Your task to perform on an android device: open chrome privacy settings Image 0: 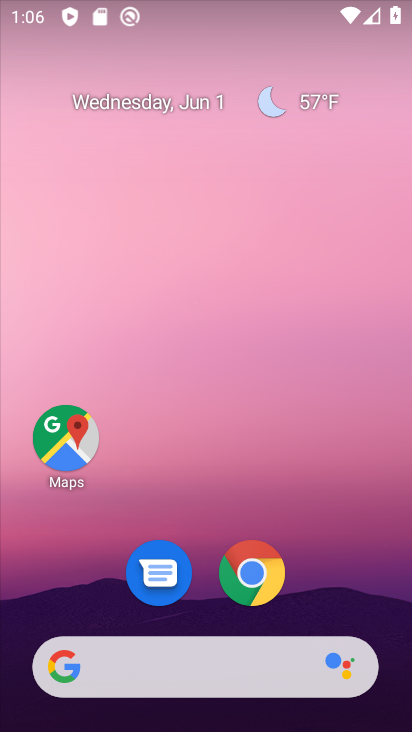
Step 0: drag from (196, 265) to (199, 66)
Your task to perform on an android device: open chrome privacy settings Image 1: 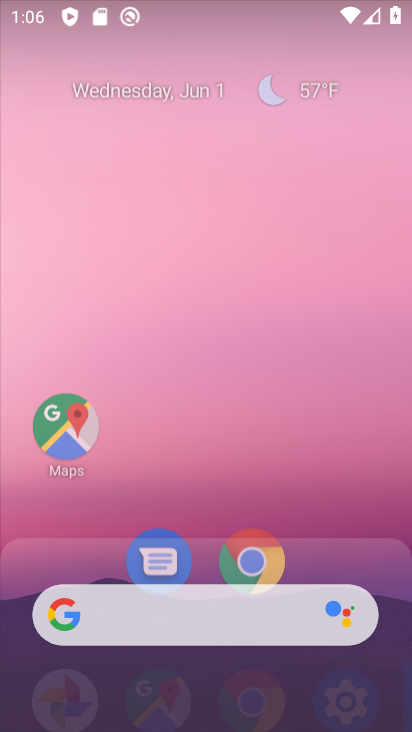
Step 1: click (247, 109)
Your task to perform on an android device: open chrome privacy settings Image 2: 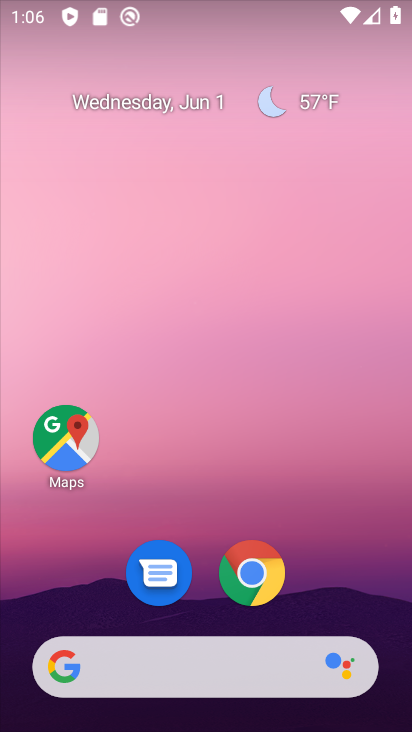
Step 2: drag from (202, 612) to (13, 276)
Your task to perform on an android device: open chrome privacy settings Image 3: 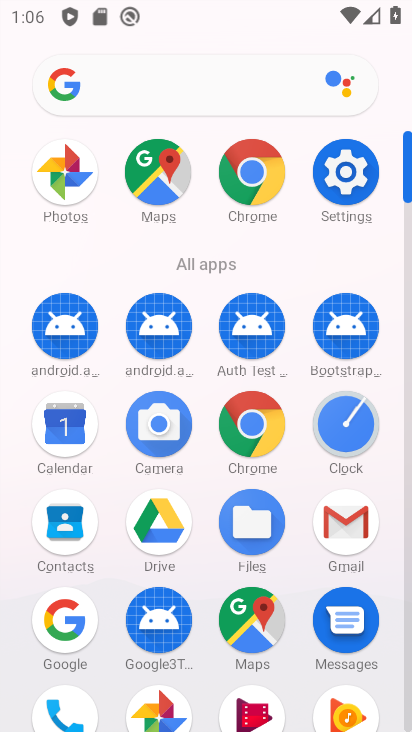
Step 3: click (338, 175)
Your task to perform on an android device: open chrome privacy settings Image 4: 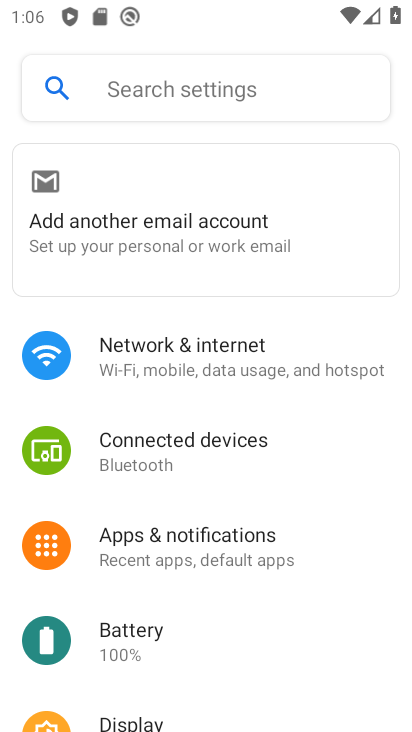
Step 4: drag from (188, 559) to (202, 181)
Your task to perform on an android device: open chrome privacy settings Image 5: 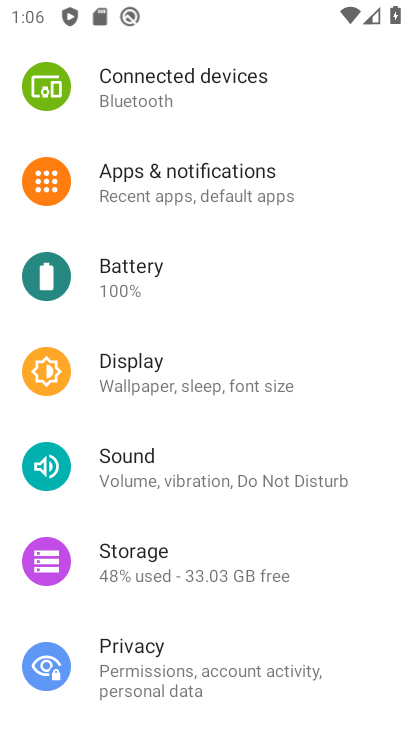
Step 5: drag from (216, 597) to (253, 176)
Your task to perform on an android device: open chrome privacy settings Image 6: 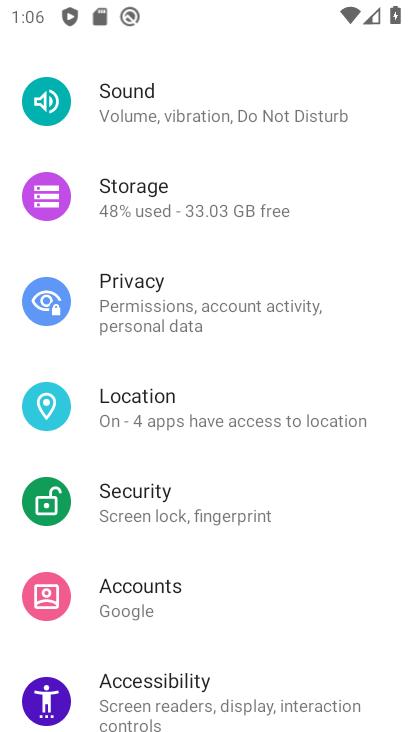
Step 6: drag from (242, 684) to (241, 321)
Your task to perform on an android device: open chrome privacy settings Image 7: 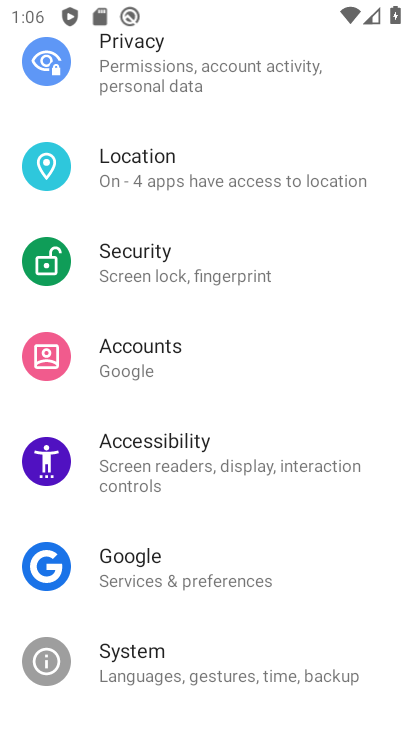
Step 7: drag from (209, 168) to (240, 479)
Your task to perform on an android device: open chrome privacy settings Image 8: 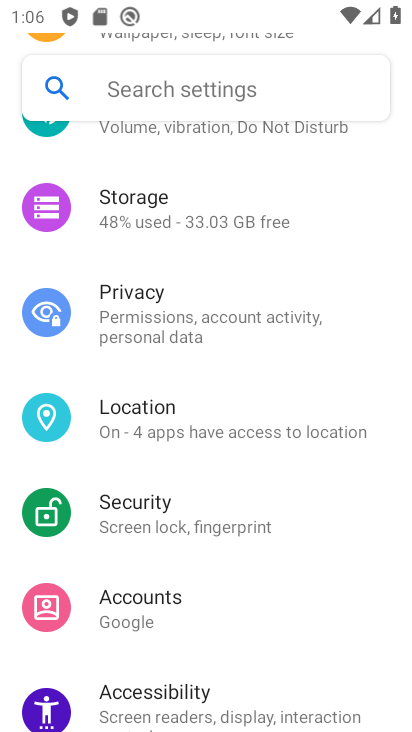
Step 8: click (197, 292)
Your task to perform on an android device: open chrome privacy settings Image 9: 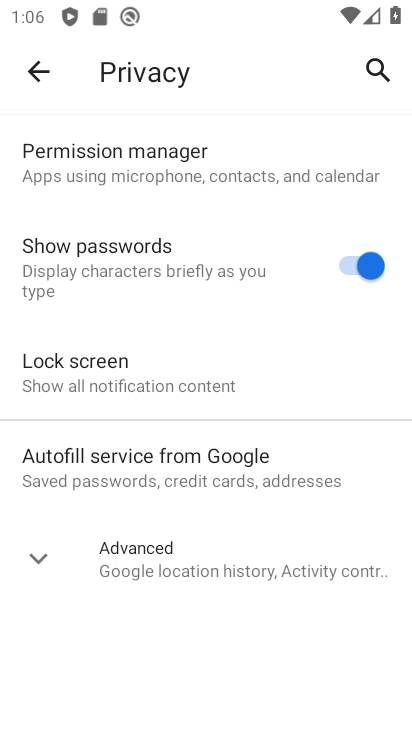
Step 9: drag from (200, 604) to (206, 266)
Your task to perform on an android device: open chrome privacy settings Image 10: 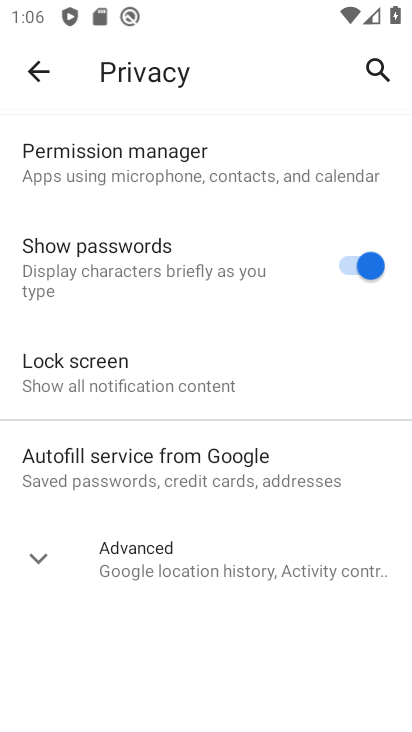
Step 10: click (164, 553)
Your task to perform on an android device: open chrome privacy settings Image 11: 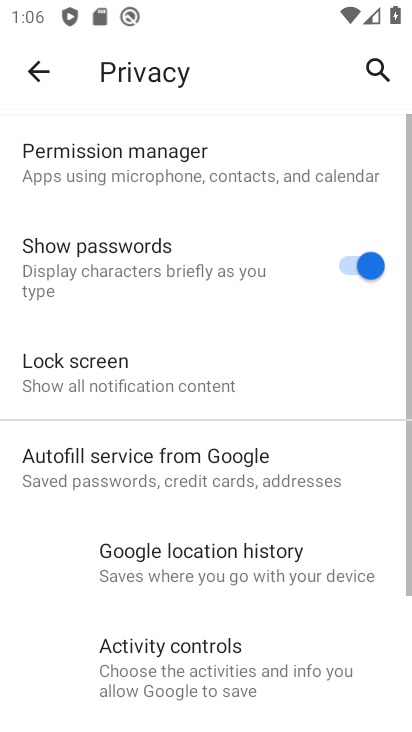
Step 11: drag from (219, 628) to (256, 374)
Your task to perform on an android device: open chrome privacy settings Image 12: 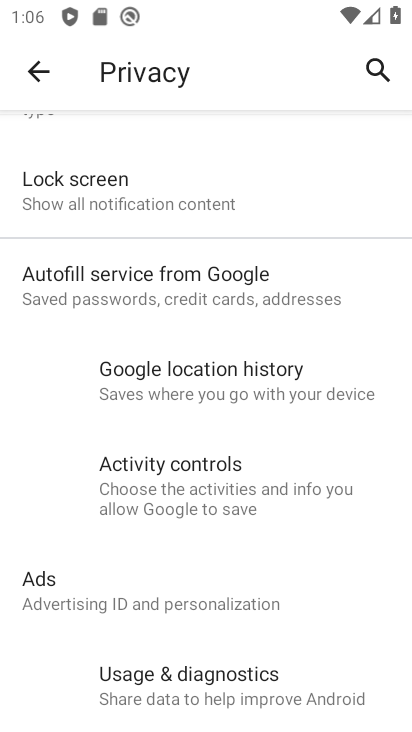
Step 12: drag from (209, 598) to (227, 333)
Your task to perform on an android device: open chrome privacy settings Image 13: 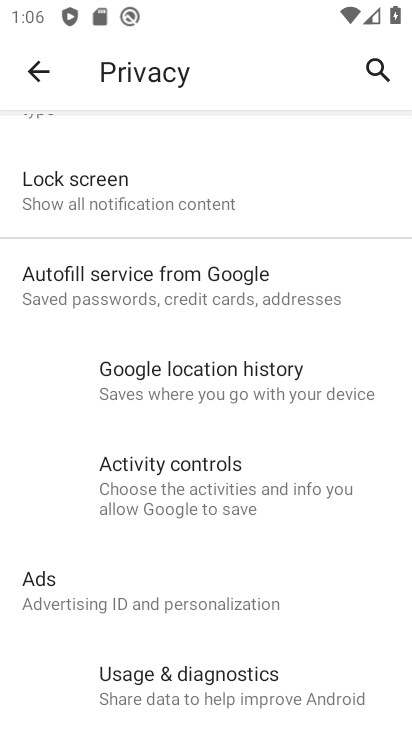
Step 13: drag from (211, 245) to (399, 134)
Your task to perform on an android device: open chrome privacy settings Image 14: 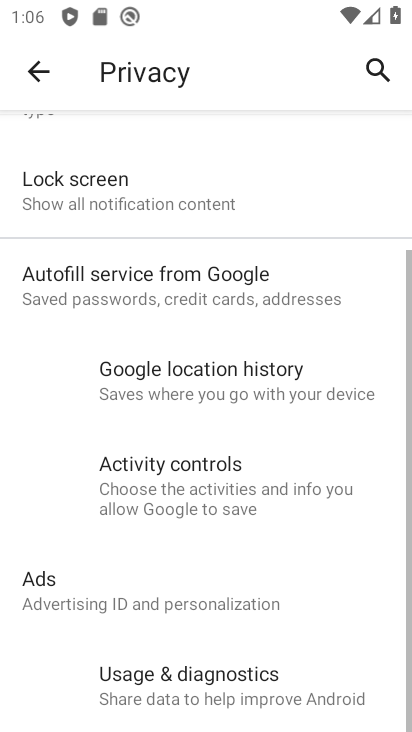
Step 14: click (41, 82)
Your task to perform on an android device: open chrome privacy settings Image 15: 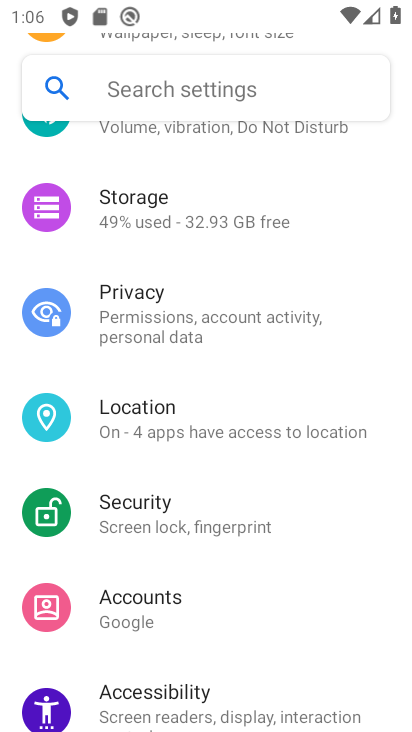
Step 15: drag from (194, 611) to (252, 6)
Your task to perform on an android device: open chrome privacy settings Image 16: 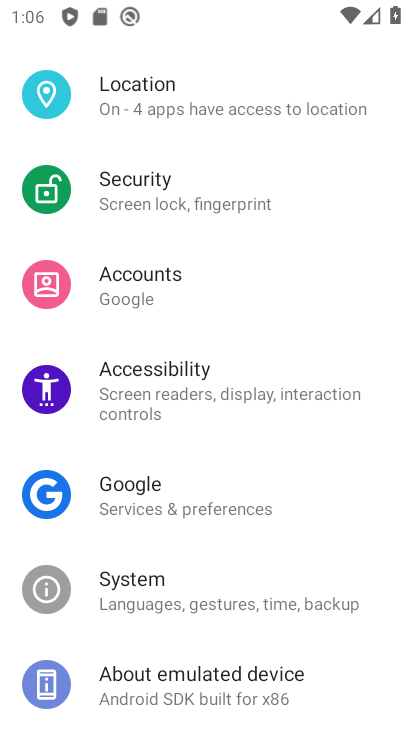
Step 16: press home button
Your task to perform on an android device: open chrome privacy settings Image 17: 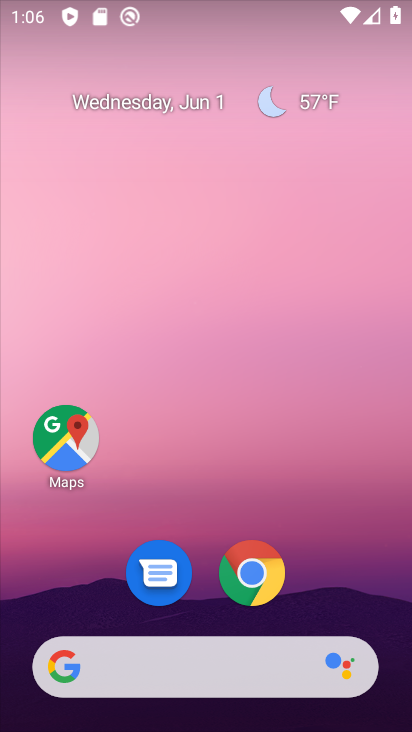
Step 17: press home button
Your task to perform on an android device: open chrome privacy settings Image 18: 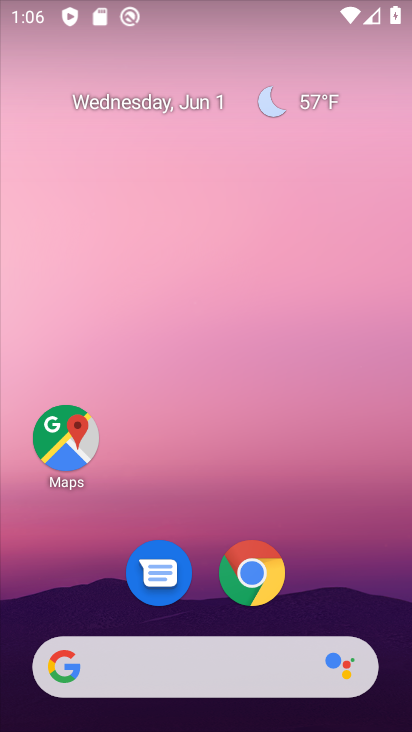
Step 18: drag from (221, 347) to (262, 89)
Your task to perform on an android device: open chrome privacy settings Image 19: 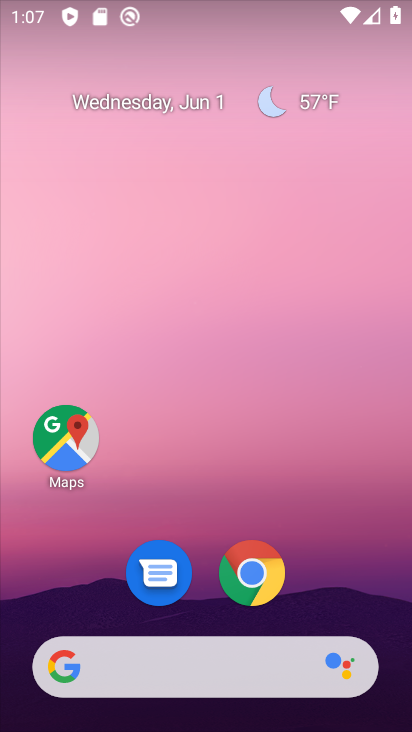
Step 19: click (256, 588)
Your task to perform on an android device: open chrome privacy settings Image 20: 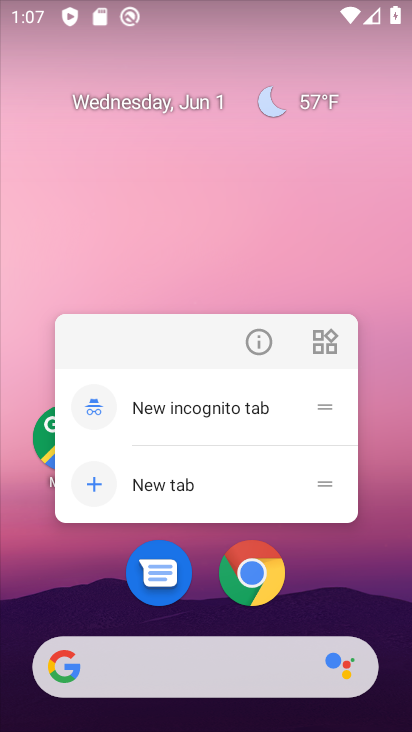
Step 20: click (267, 345)
Your task to perform on an android device: open chrome privacy settings Image 21: 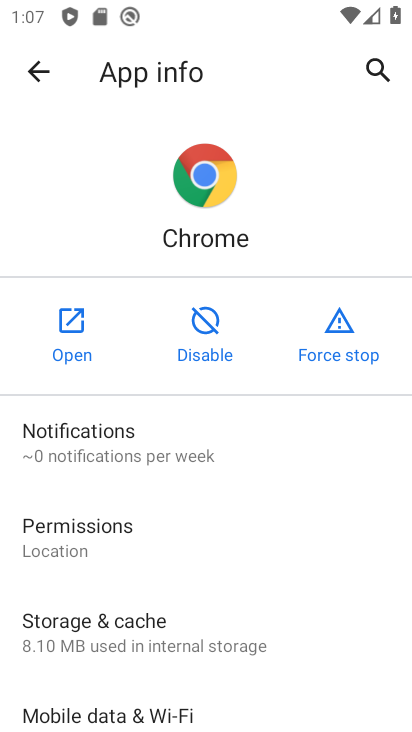
Step 21: click (72, 322)
Your task to perform on an android device: open chrome privacy settings Image 22: 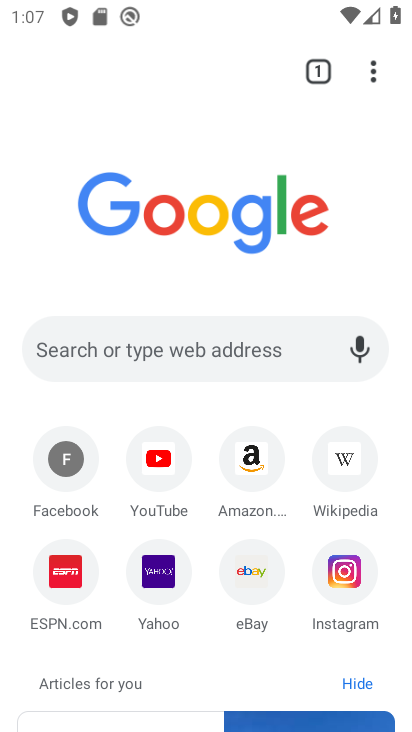
Step 22: click (369, 58)
Your task to perform on an android device: open chrome privacy settings Image 23: 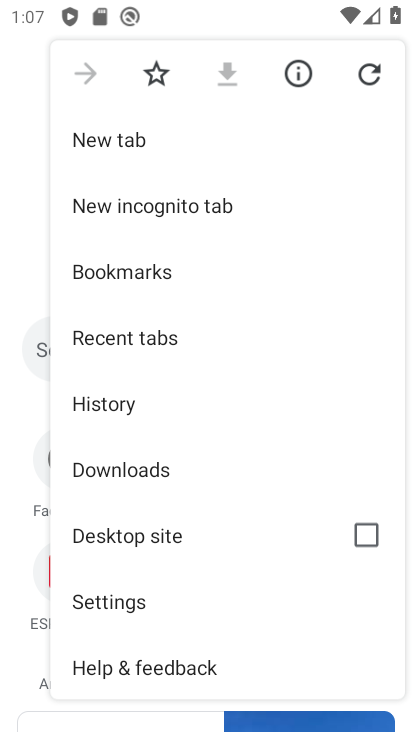
Step 23: click (117, 605)
Your task to perform on an android device: open chrome privacy settings Image 24: 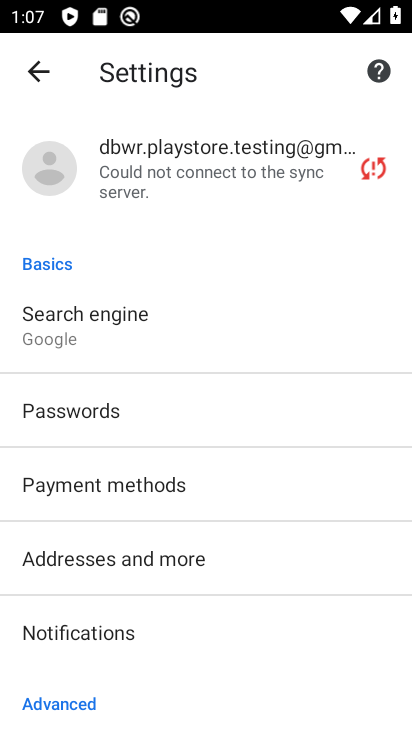
Step 24: drag from (155, 651) to (243, 253)
Your task to perform on an android device: open chrome privacy settings Image 25: 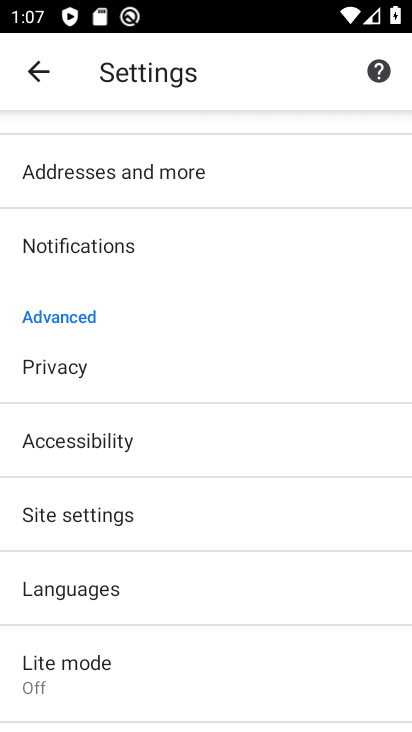
Step 25: click (123, 377)
Your task to perform on an android device: open chrome privacy settings Image 26: 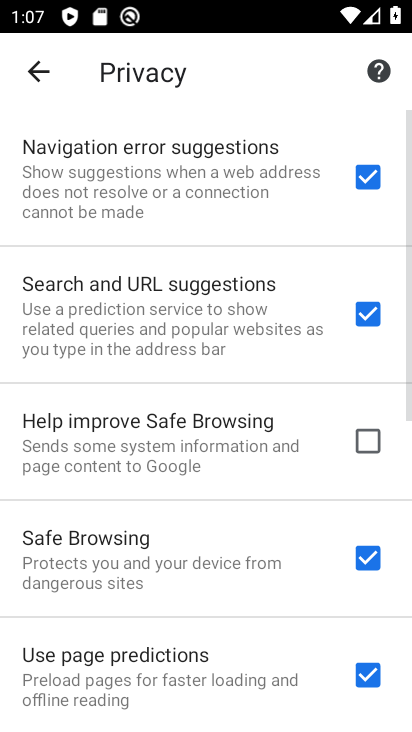
Step 26: task complete